Your task to perform on an android device: Check the weather Image 0: 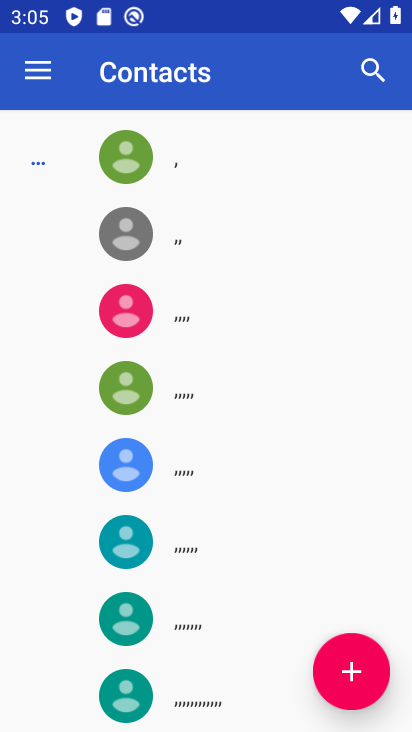
Step 0: press home button
Your task to perform on an android device: Check the weather Image 1: 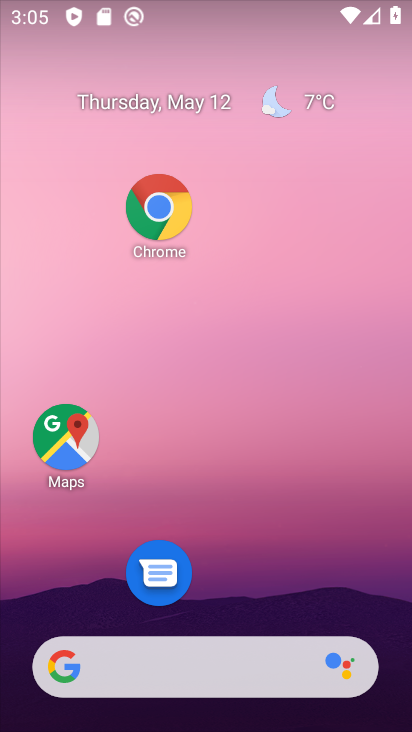
Step 1: drag from (211, 598) to (225, 132)
Your task to perform on an android device: Check the weather Image 2: 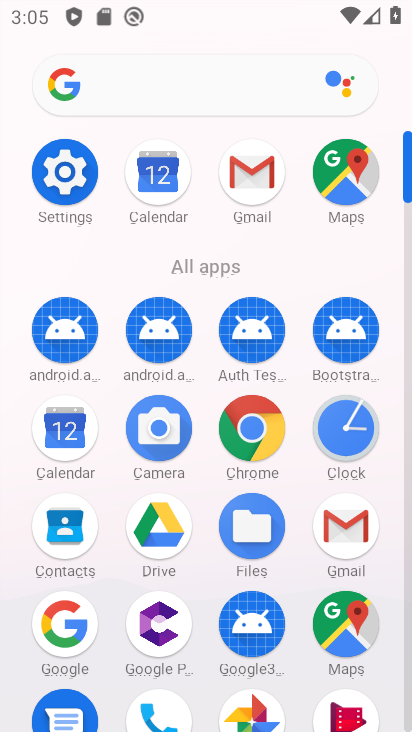
Step 2: drag from (270, 59) to (201, 538)
Your task to perform on an android device: Check the weather Image 3: 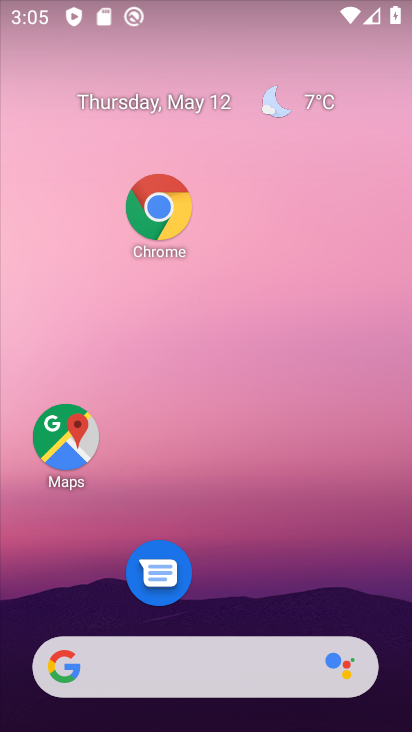
Step 3: click (282, 106)
Your task to perform on an android device: Check the weather Image 4: 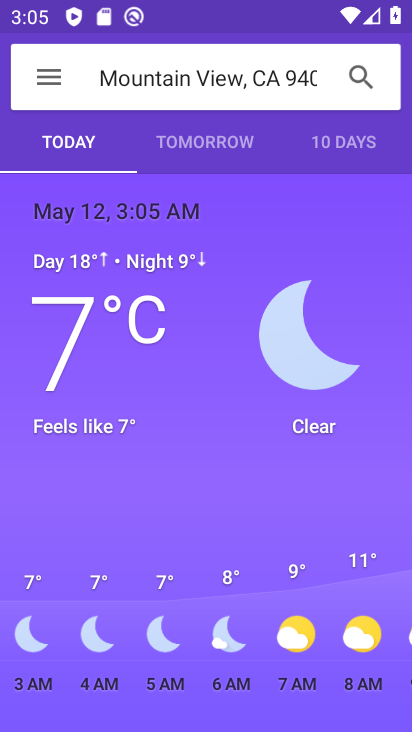
Step 4: task complete